Your task to perform on an android device: Is it going to rain today? Image 0: 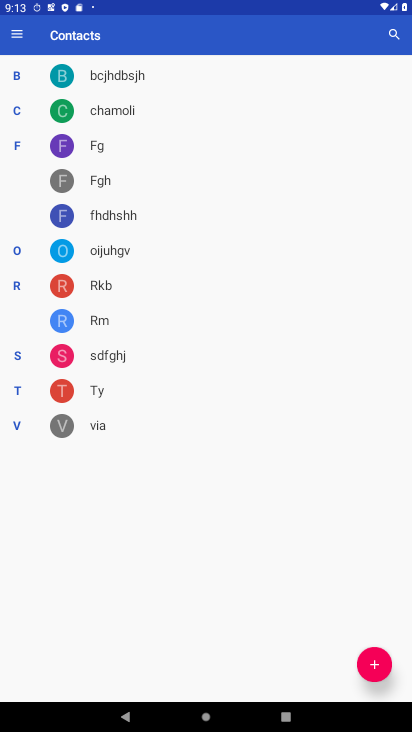
Step 0: press home button
Your task to perform on an android device: Is it going to rain today? Image 1: 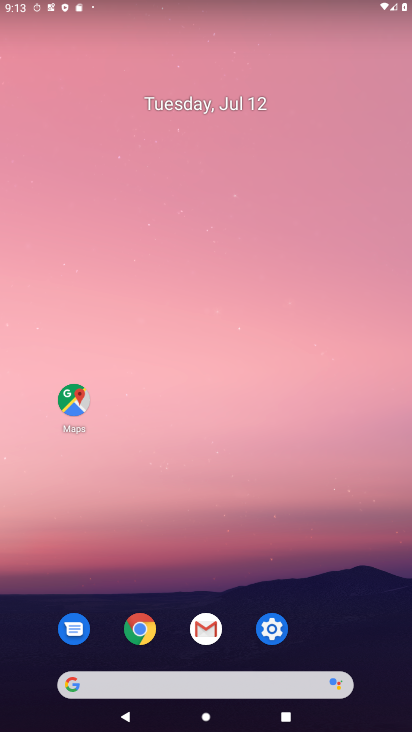
Step 1: click (204, 686)
Your task to perform on an android device: Is it going to rain today? Image 2: 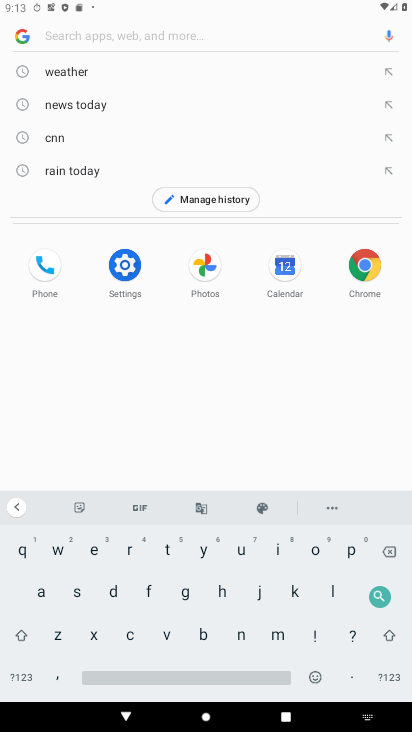
Step 2: click (128, 543)
Your task to perform on an android device: Is it going to rain today? Image 3: 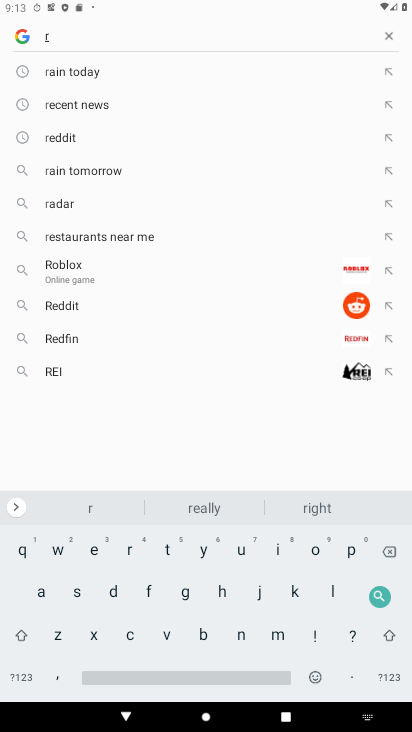
Step 3: click (63, 71)
Your task to perform on an android device: Is it going to rain today? Image 4: 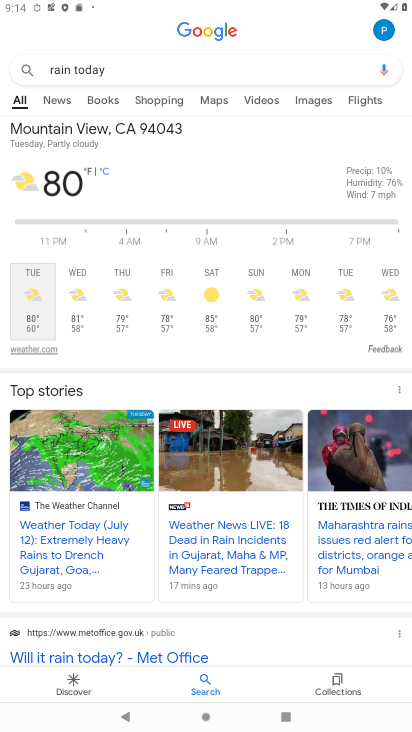
Step 4: task complete